Your task to perform on an android device: turn on javascript in the chrome app Image 0: 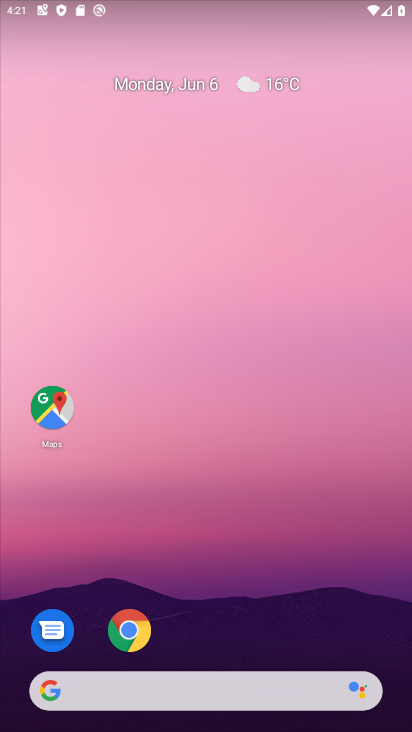
Step 0: click (140, 628)
Your task to perform on an android device: turn on javascript in the chrome app Image 1: 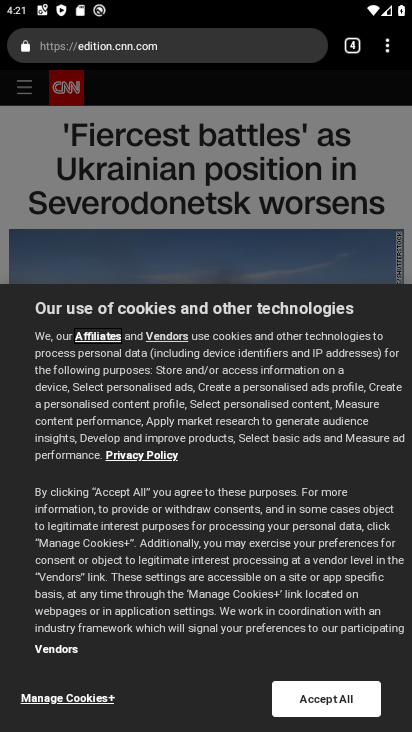
Step 1: drag from (381, 47) to (217, 503)
Your task to perform on an android device: turn on javascript in the chrome app Image 2: 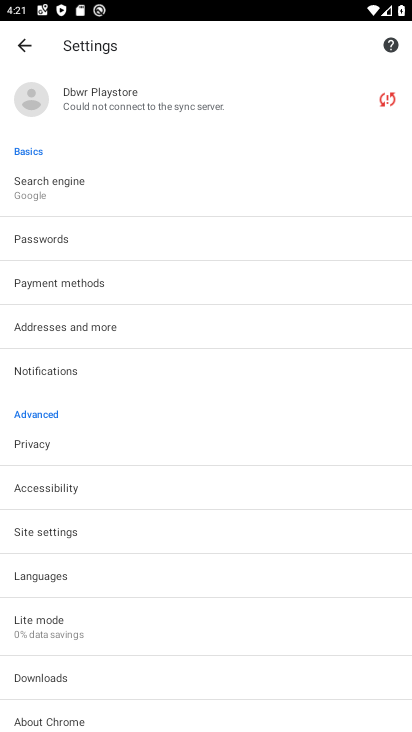
Step 2: click (136, 529)
Your task to perform on an android device: turn on javascript in the chrome app Image 3: 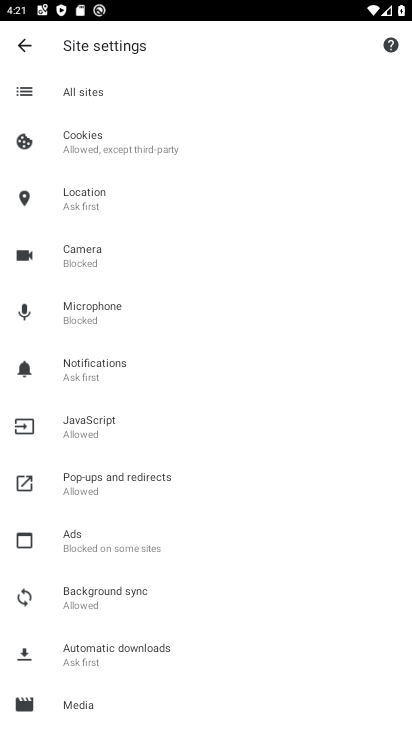
Step 3: click (109, 427)
Your task to perform on an android device: turn on javascript in the chrome app Image 4: 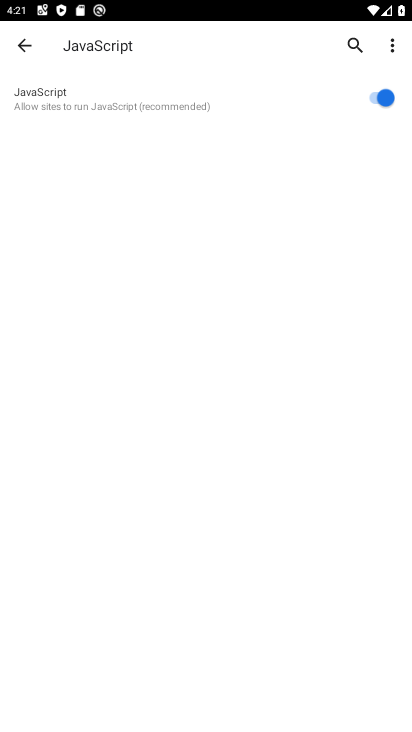
Step 4: task complete